Your task to perform on an android device: change notifications settings Image 0: 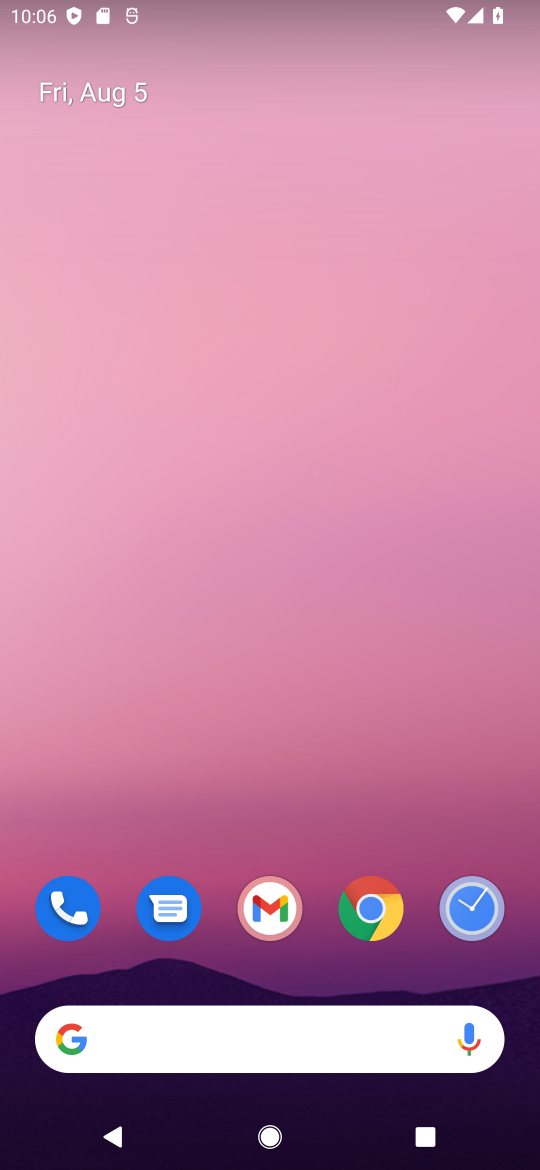
Step 0: drag from (276, 980) to (279, 349)
Your task to perform on an android device: change notifications settings Image 1: 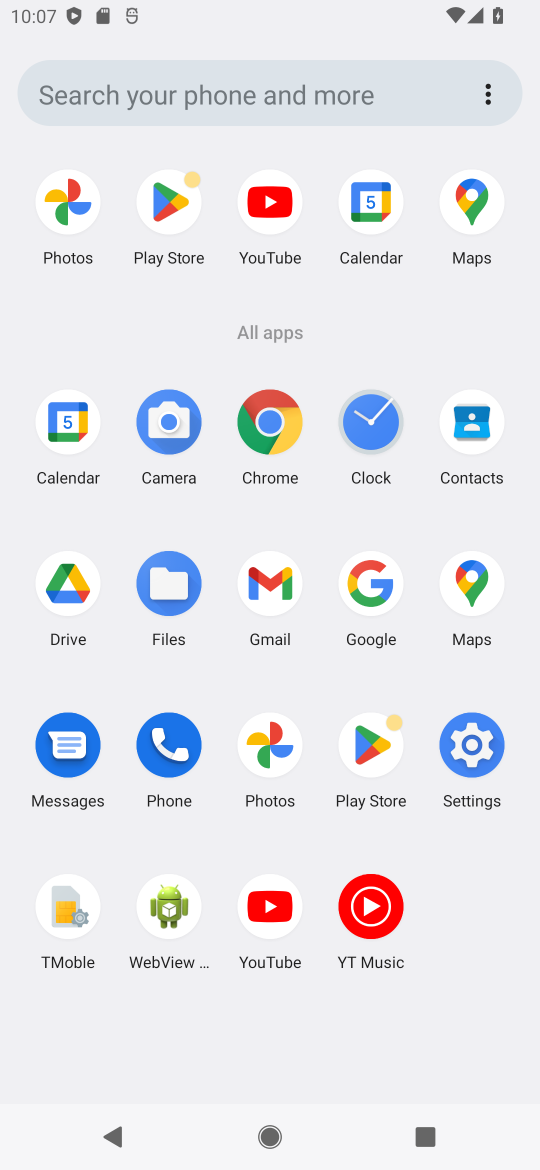
Step 1: click (456, 754)
Your task to perform on an android device: change notifications settings Image 2: 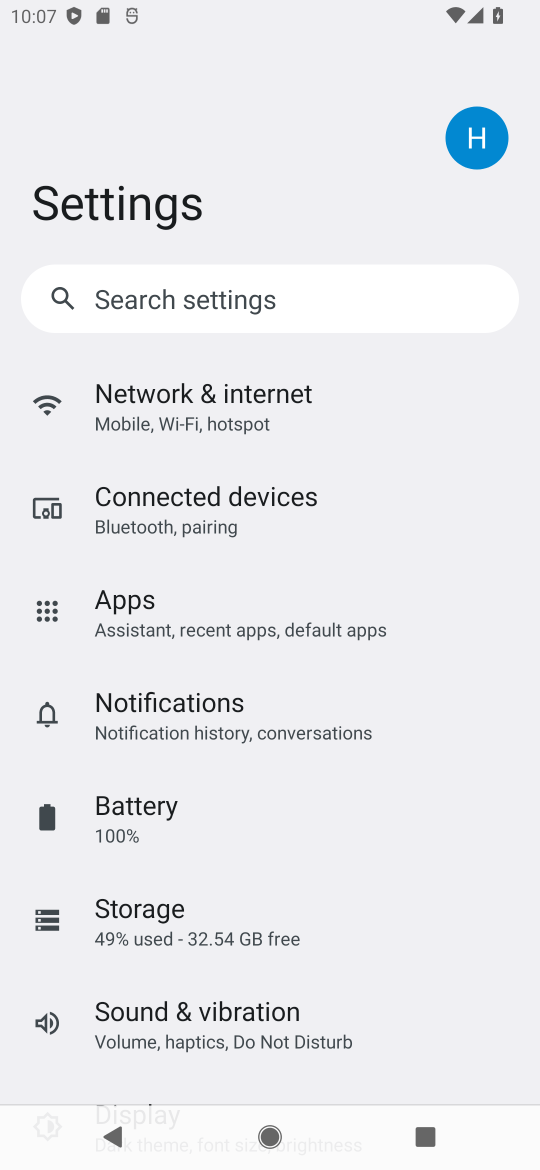
Step 2: task complete